Your task to perform on an android device: Open wifi settings Image 0: 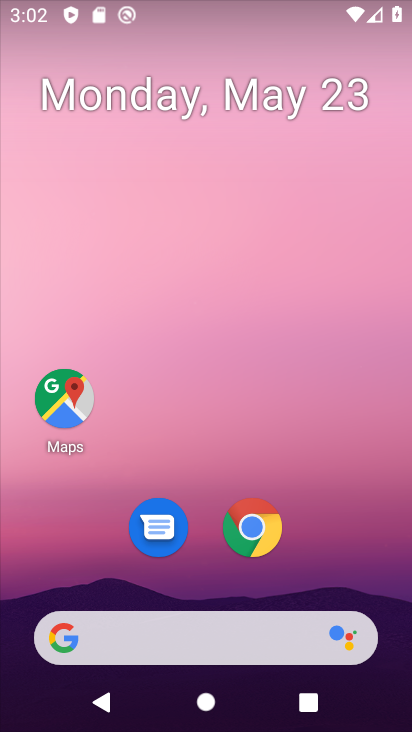
Step 0: drag from (330, 324) to (343, 78)
Your task to perform on an android device: Open wifi settings Image 1: 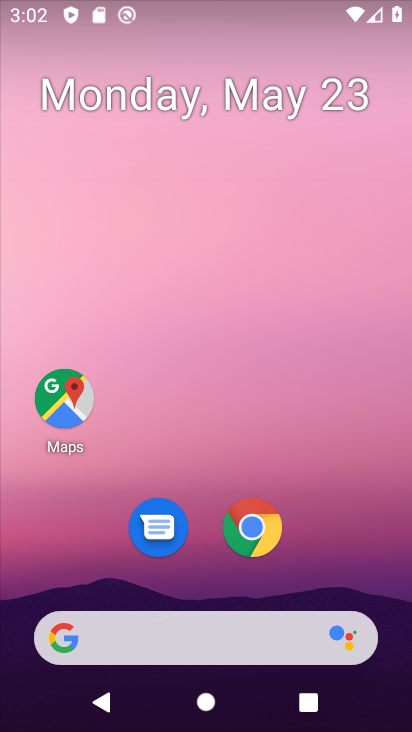
Step 1: drag from (316, 110) to (324, 49)
Your task to perform on an android device: Open wifi settings Image 2: 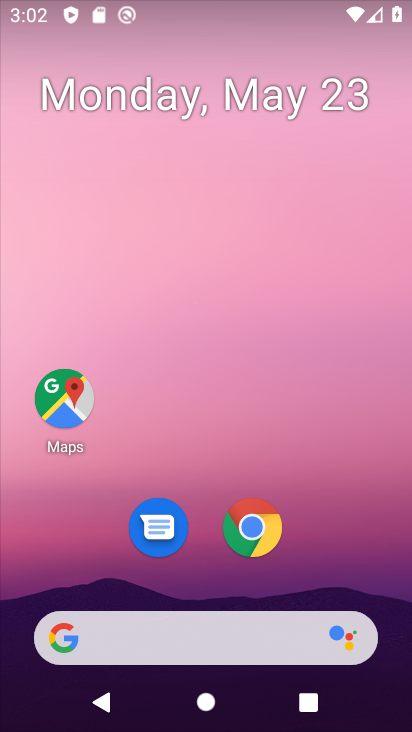
Step 2: drag from (291, 584) to (301, 28)
Your task to perform on an android device: Open wifi settings Image 3: 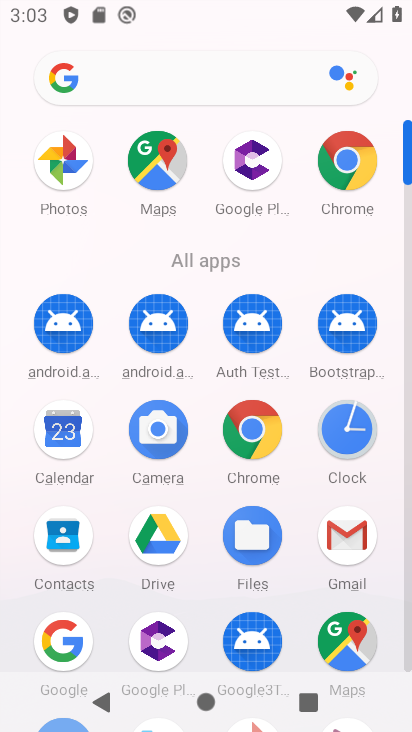
Step 3: drag from (192, 543) to (246, 28)
Your task to perform on an android device: Open wifi settings Image 4: 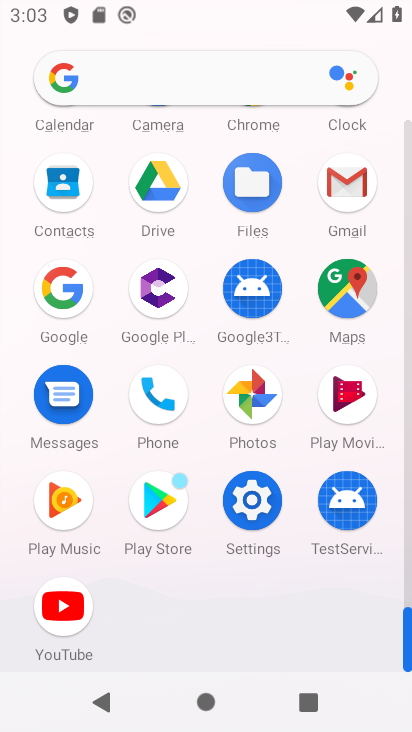
Step 4: click (254, 526)
Your task to perform on an android device: Open wifi settings Image 5: 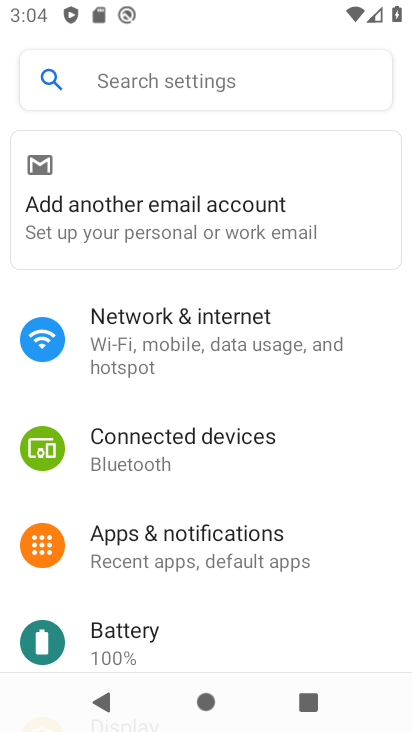
Step 5: click (212, 330)
Your task to perform on an android device: Open wifi settings Image 6: 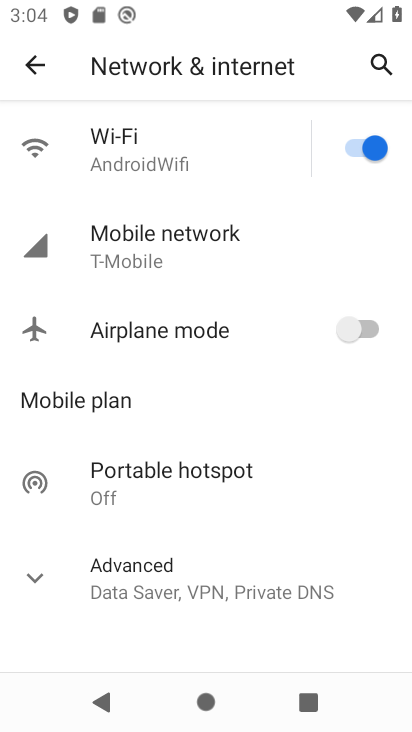
Step 6: click (191, 143)
Your task to perform on an android device: Open wifi settings Image 7: 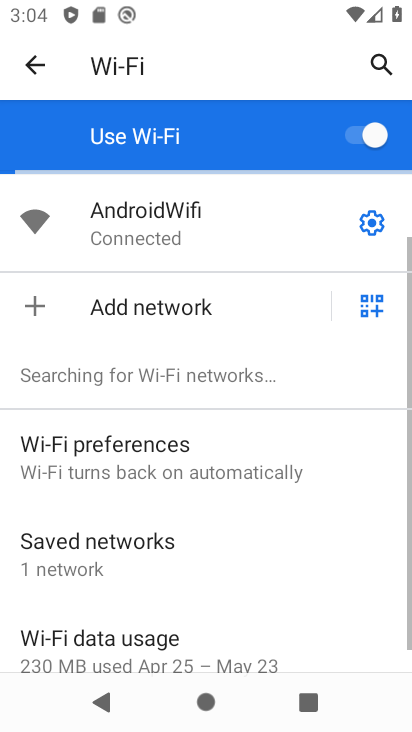
Step 7: click (375, 218)
Your task to perform on an android device: Open wifi settings Image 8: 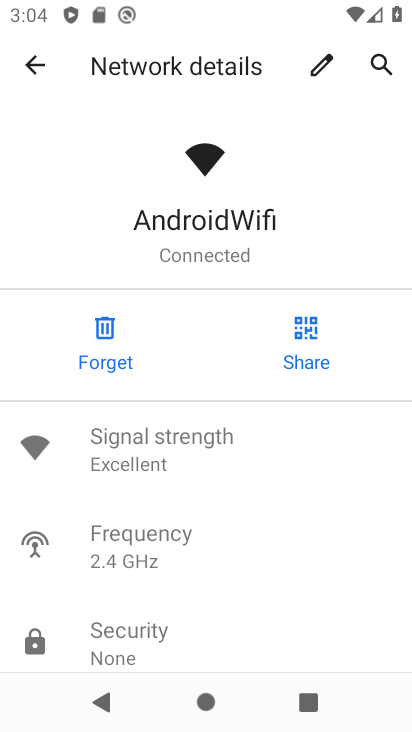
Step 8: task complete